Your task to perform on an android device: toggle notification dots Image 0: 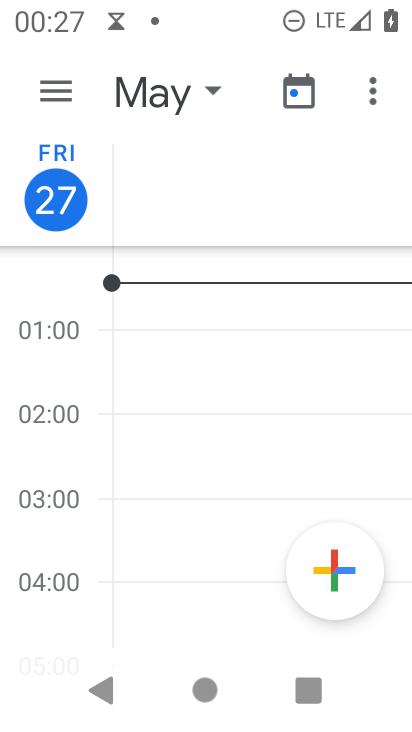
Step 0: press home button
Your task to perform on an android device: toggle notification dots Image 1: 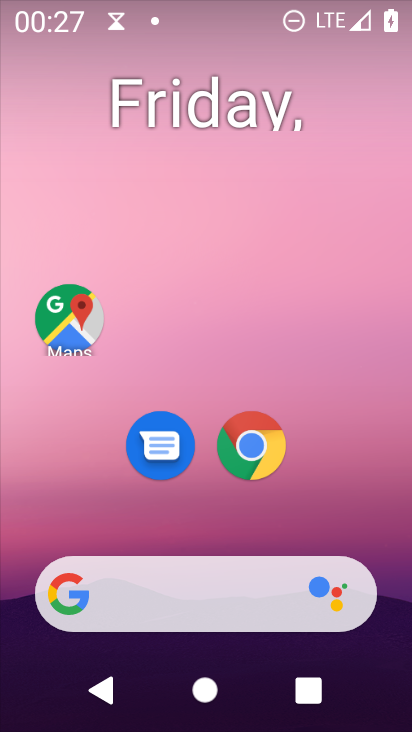
Step 1: drag from (243, 728) to (243, 186)
Your task to perform on an android device: toggle notification dots Image 2: 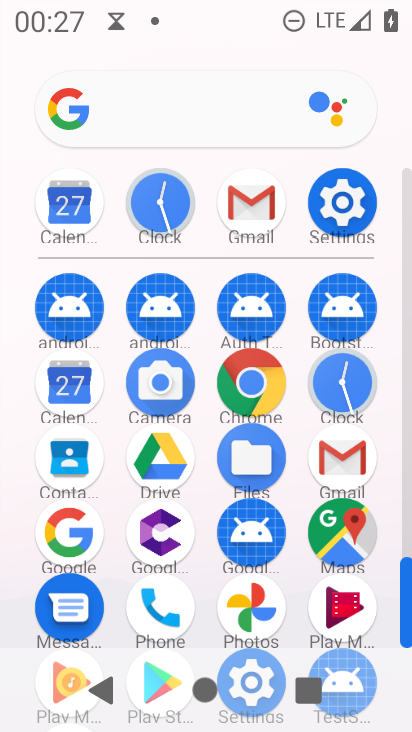
Step 2: click (344, 204)
Your task to perform on an android device: toggle notification dots Image 3: 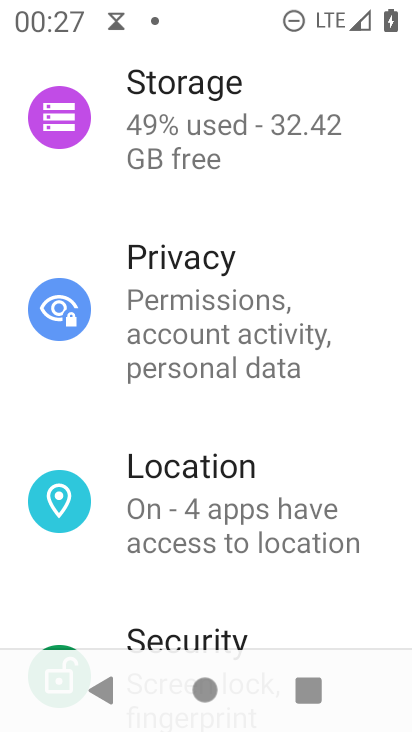
Step 3: drag from (324, 84) to (317, 545)
Your task to perform on an android device: toggle notification dots Image 4: 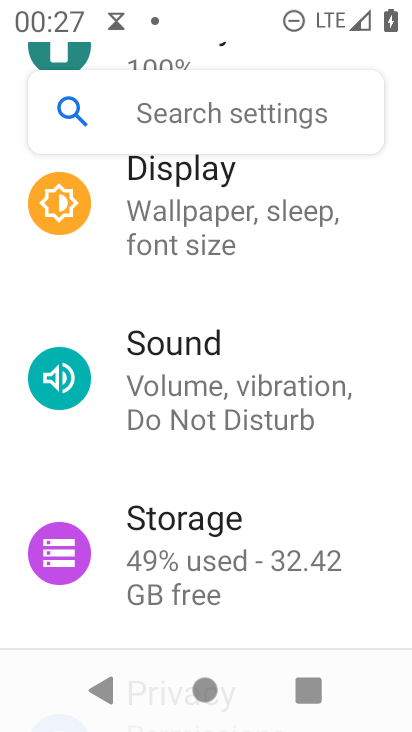
Step 4: drag from (330, 180) to (314, 512)
Your task to perform on an android device: toggle notification dots Image 5: 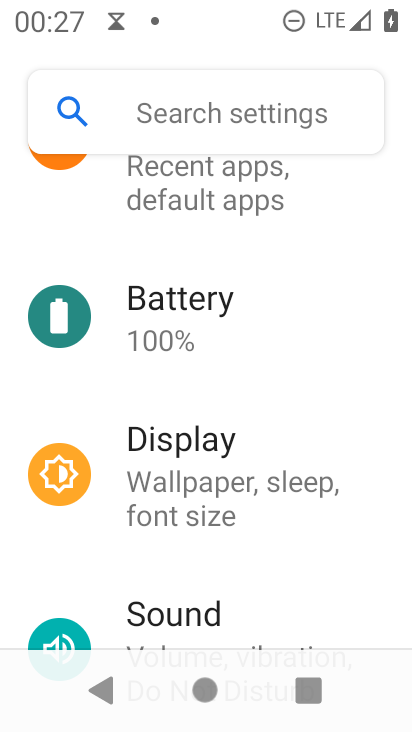
Step 5: drag from (304, 173) to (310, 558)
Your task to perform on an android device: toggle notification dots Image 6: 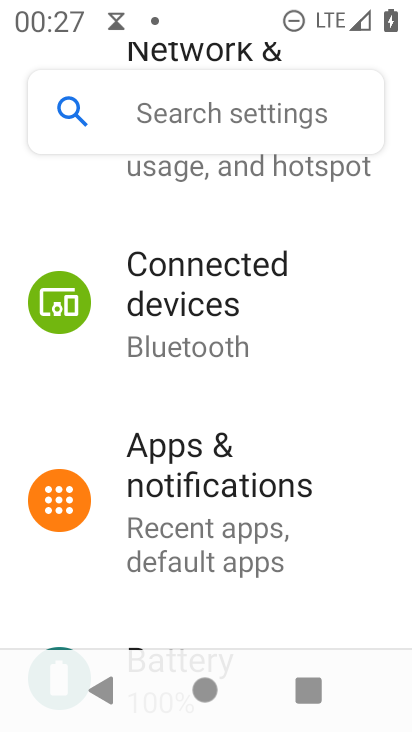
Step 6: click (197, 504)
Your task to perform on an android device: toggle notification dots Image 7: 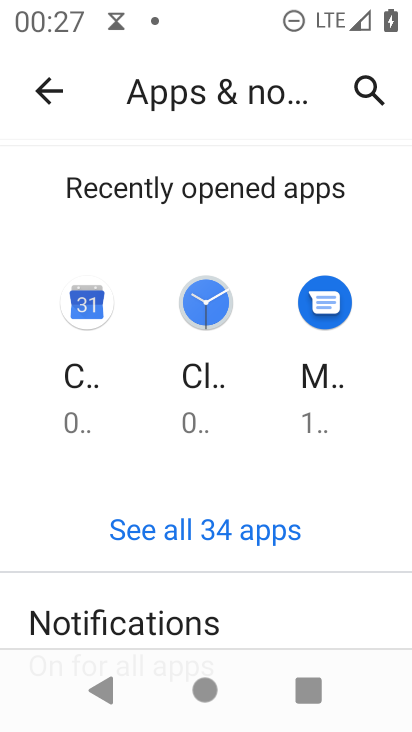
Step 7: drag from (276, 629) to (268, 394)
Your task to perform on an android device: toggle notification dots Image 8: 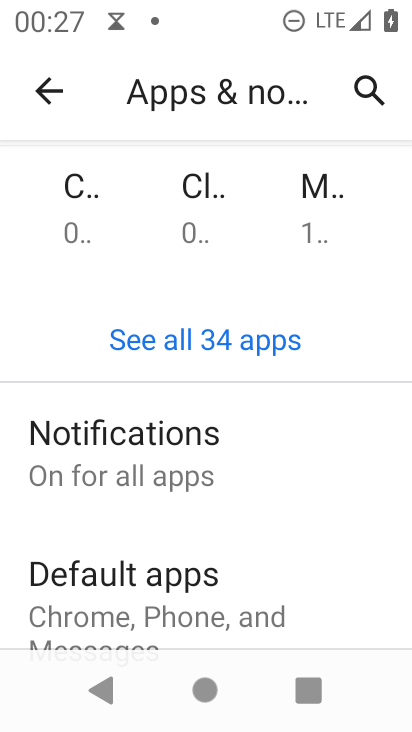
Step 8: click (151, 464)
Your task to perform on an android device: toggle notification dots Image 9: 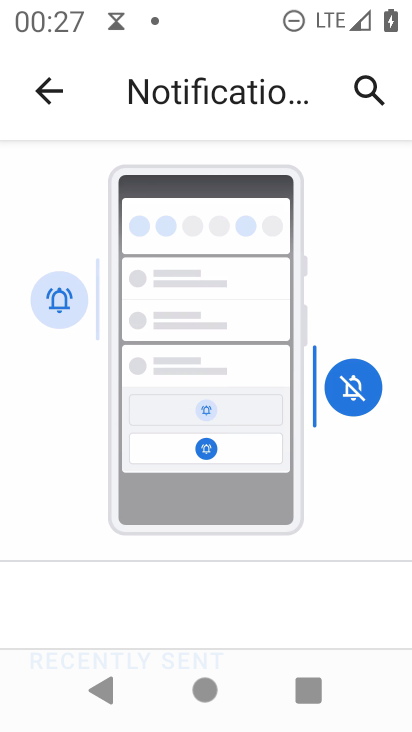
Step 9: drag from (232, 631) to (224, 143)
Your task to perform on an android device: toggle notification dots Image 10: 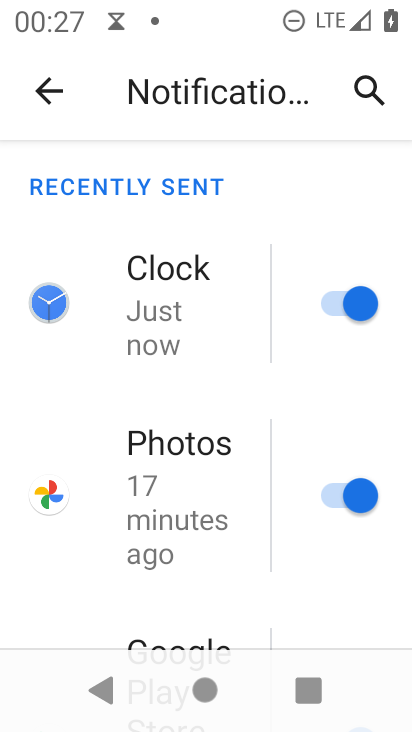
Step 10: drag from (244, 639) to (217, 157)
Your task to perform on an android device: toggle notification dots Image 11: 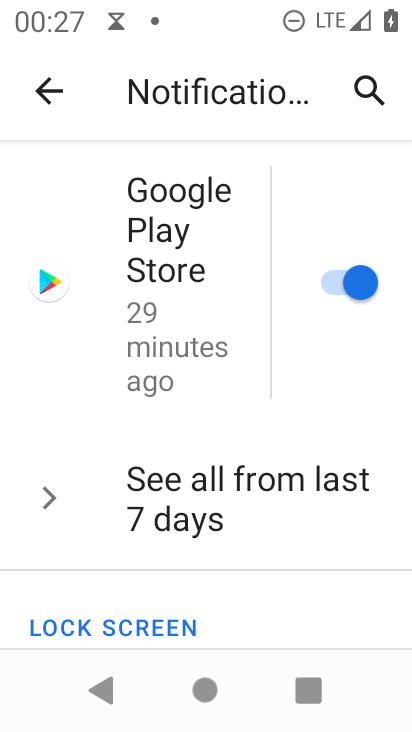
Step 11: drag from (215, 638) to (196, 308)
Your task to perform on an android device: toggle notification dots Image 12: 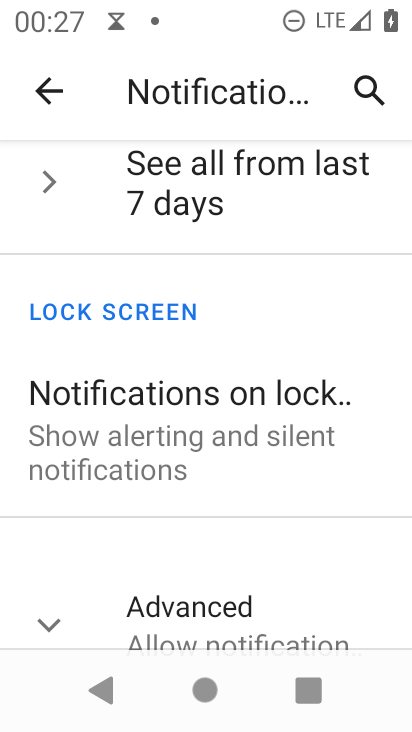
Step 12: drag from (219, 602) to (213, 310)
Your task to perform on an android device: toggle notification dots Image 13: 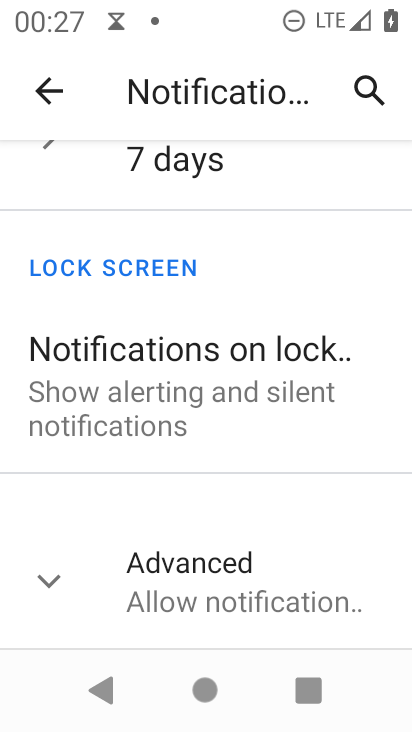
Step 13: click (180, 591)
Your task to perform on an android device: toggle notification dots Image 14: 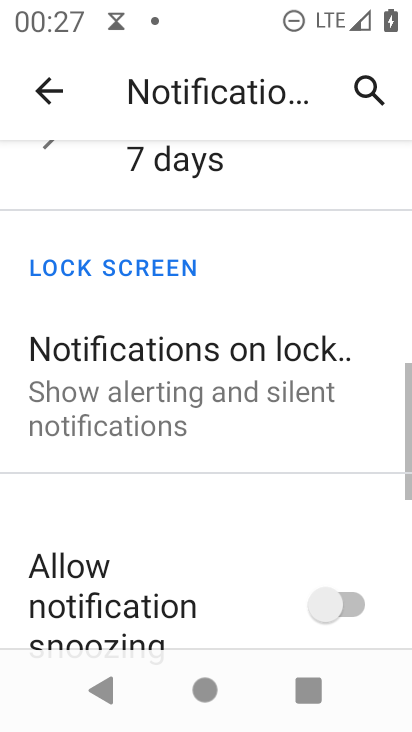
Step 14: drag from (229, 628) to (234, 211)
Your task to perform on an android device: toggle notification dots Image 15: 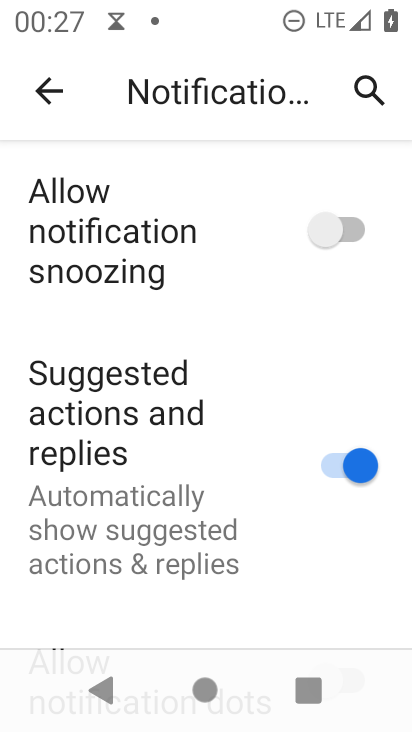
Step 15: drag from (248, 635) to (248, 295)
Your task to perform on an android device: toggle notification dots Image 16: 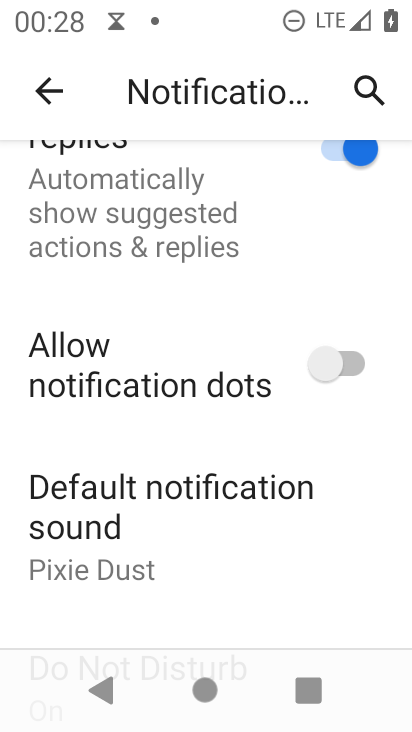
Step 16: click (347, 364)
Your task to perform on an android device: toggle notification dots Image 17: 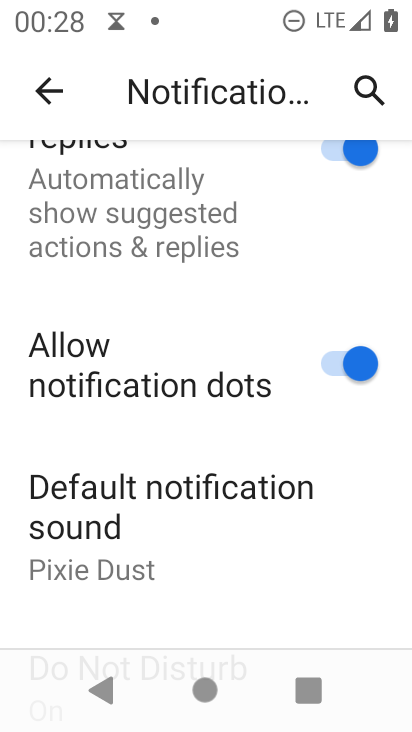
Step 17: task complete